Your task to perform on an android device: What's the weather like in New York? Image 0: 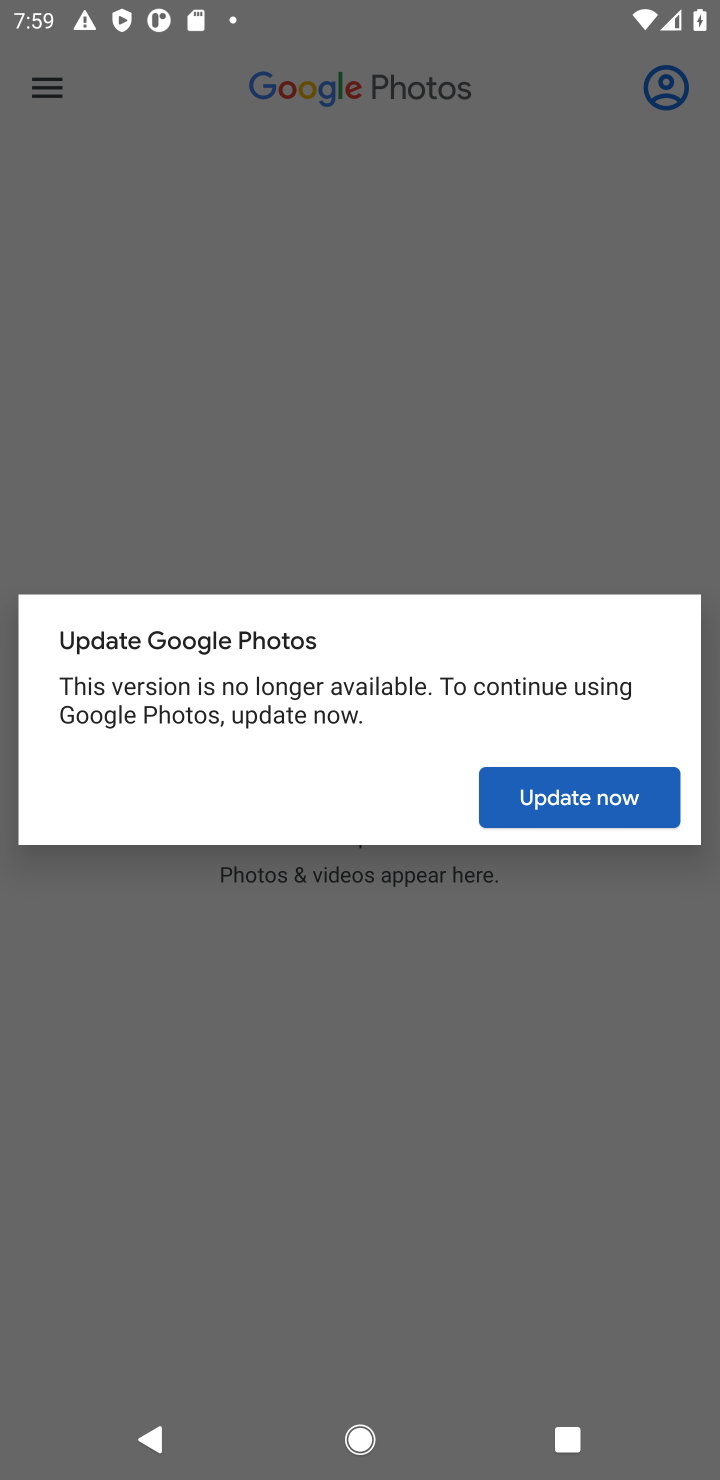
Step 0: press home button
Your task to perform on an android device: What's the weather like in New York? Image 1: 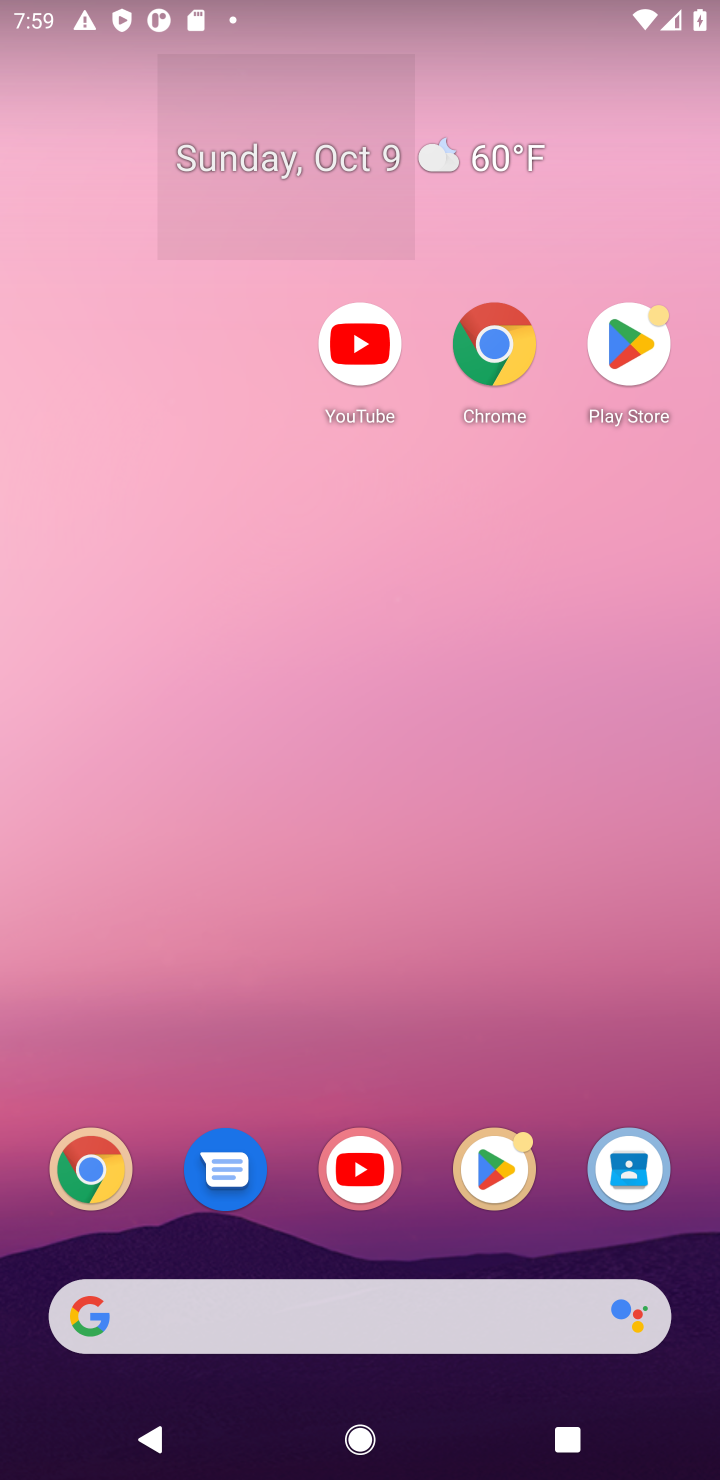
Step 1: click (275, 1311)
Your task to perform on an android device: What's the weather like in New York? Image 2: 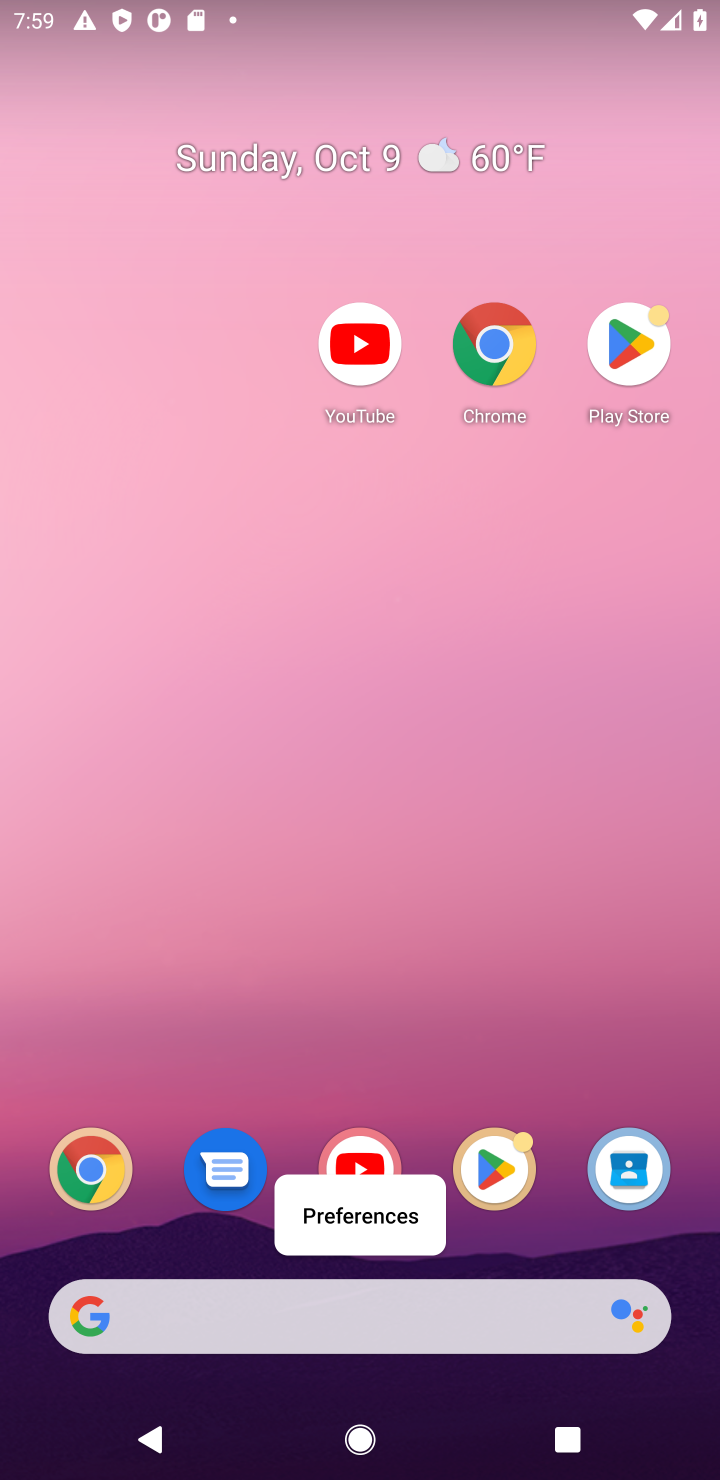
Step 2: click (293, 1324)
Your task to perform on an android device: What's the weather like in New York? Image 3: 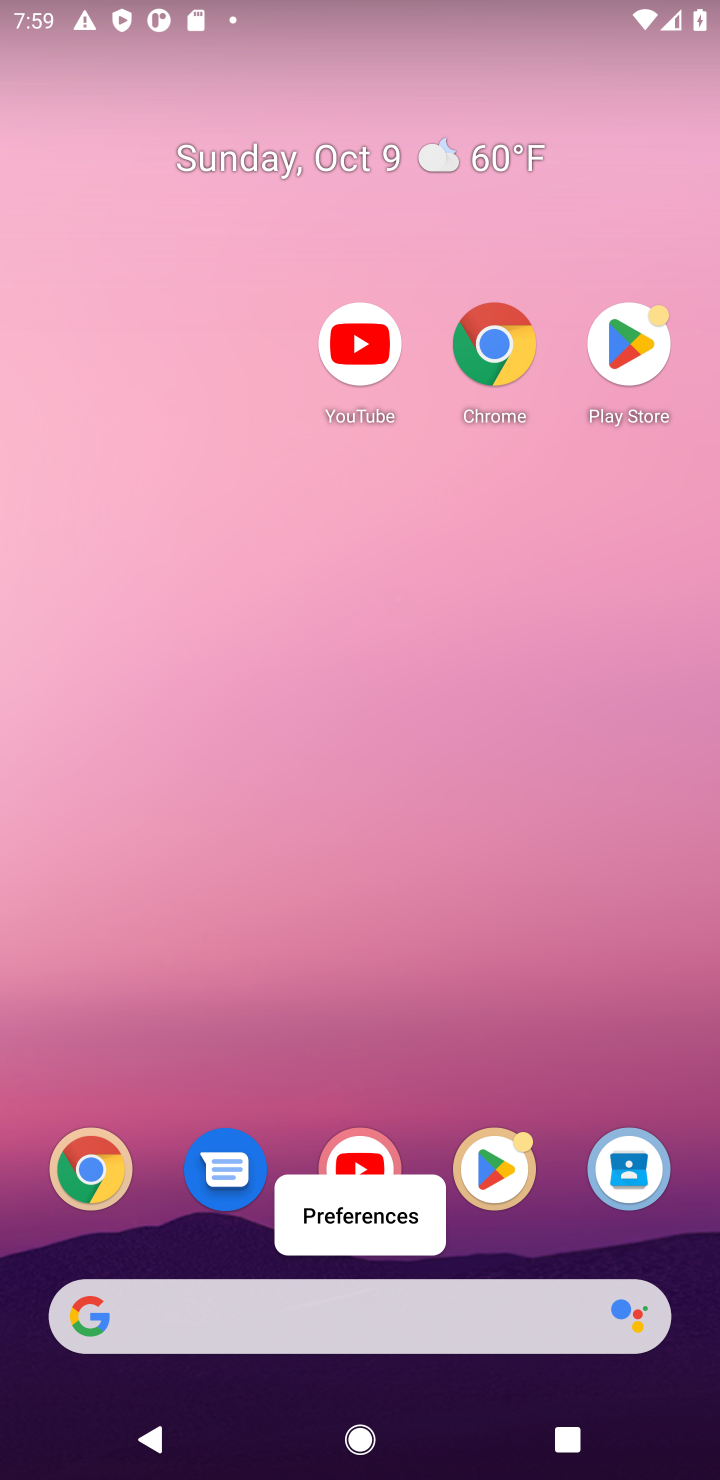
Step 3: click (361, 1321)
Your task to perform on an android device: What's the weather like in New York? Image 4: 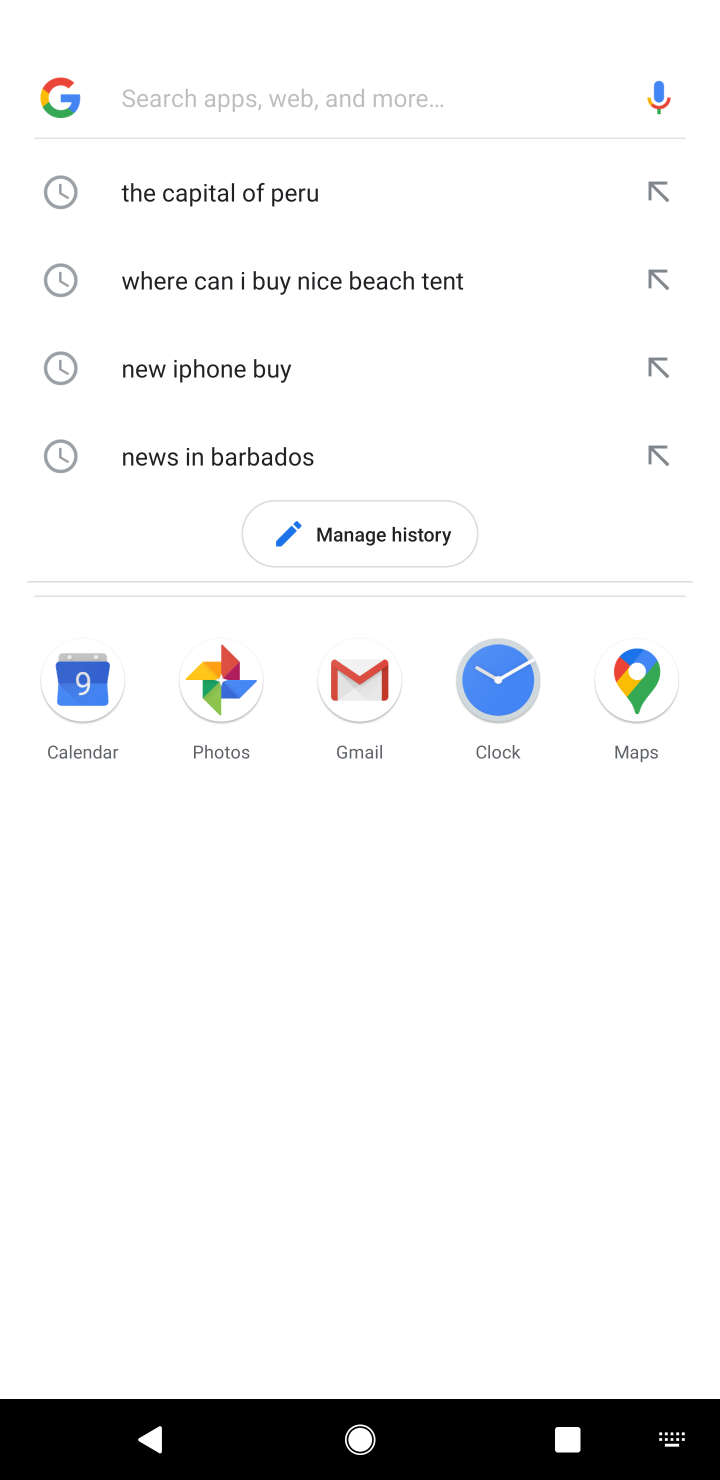
Step 4: type "What's the weather like in New York?"
Your task to perform on an android device: What's the weather like in New York? Image 5: 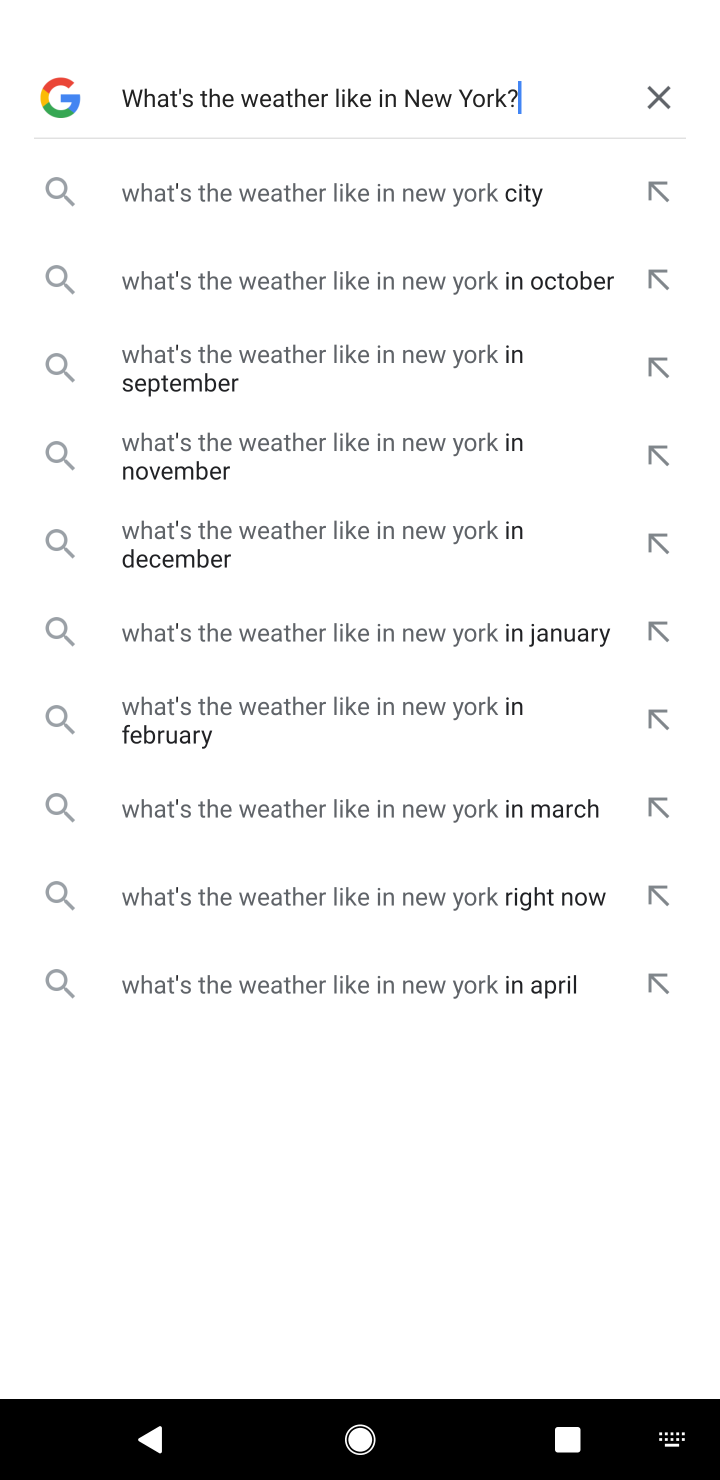
Step 5: press enter
Your task to perform on an android device: What's the weather like in New York? Image 6: 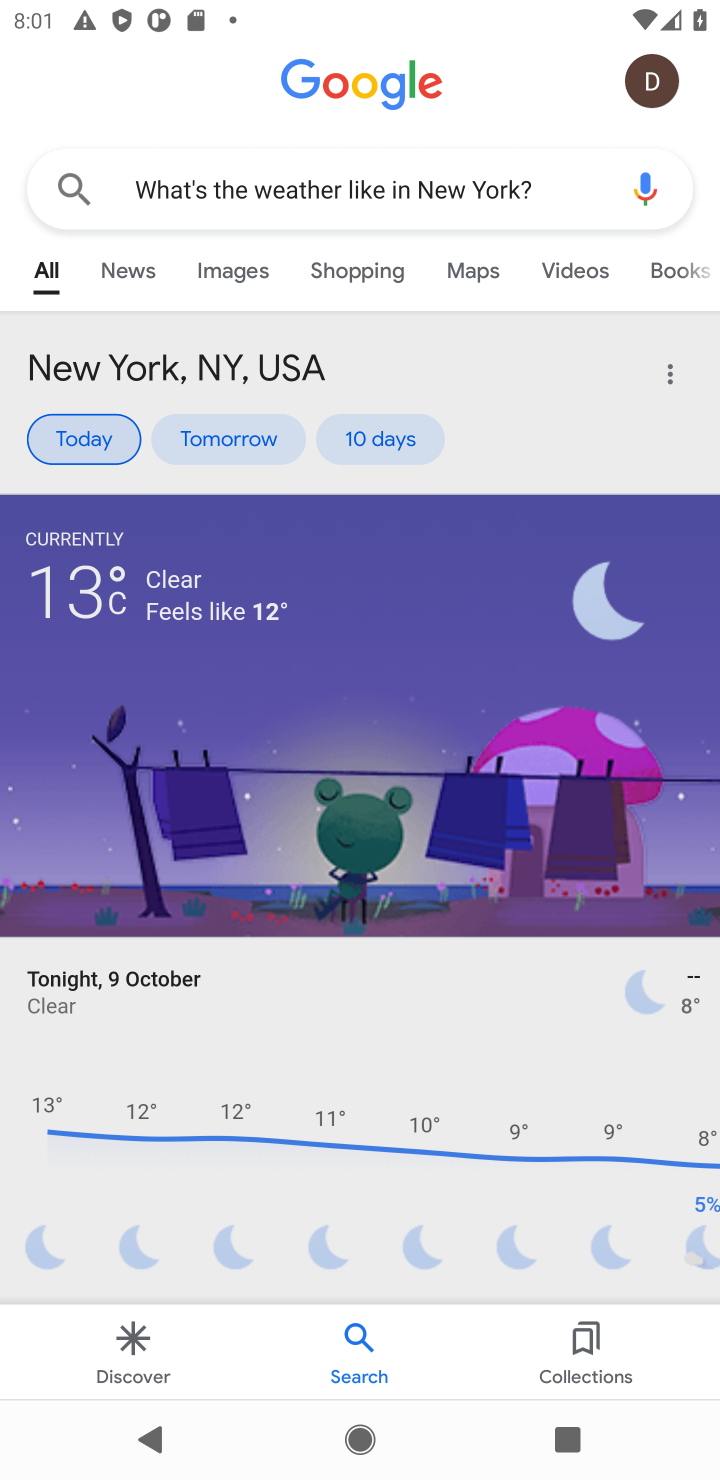
Step 6: task complete